Your task to perform on an android device: Show me popular videos on Youtube Image 0: 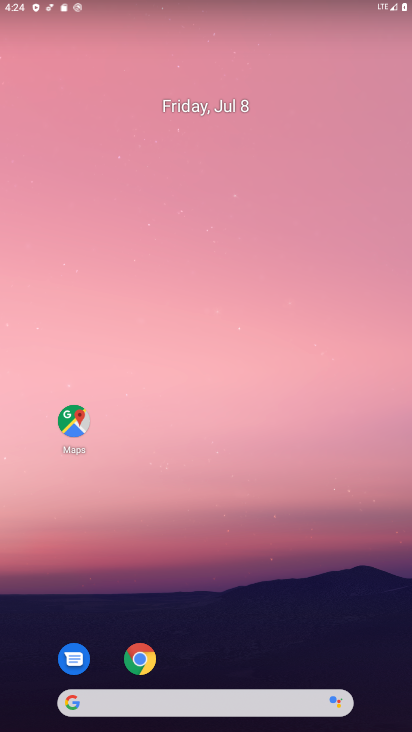
Step 0: drag from (248, 715) to (188, 392)
Your task to perform on an android device: Show me popular videos on Youtube Image 1: 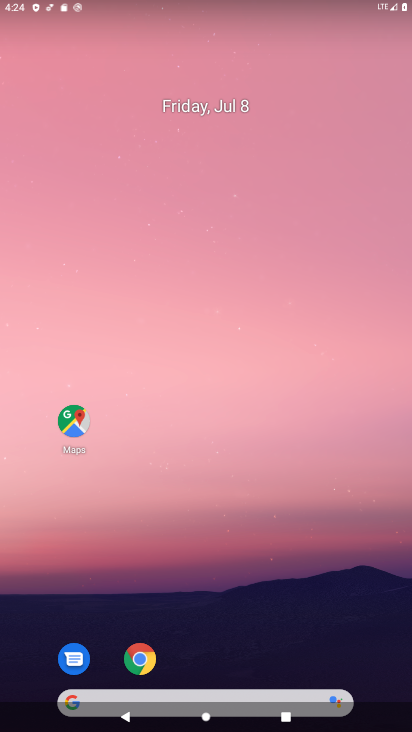
Step 1: drag from (381, 652) to (240, 99)
Your task to perform on an android device: Show me popular videos on Youtube Image 2: 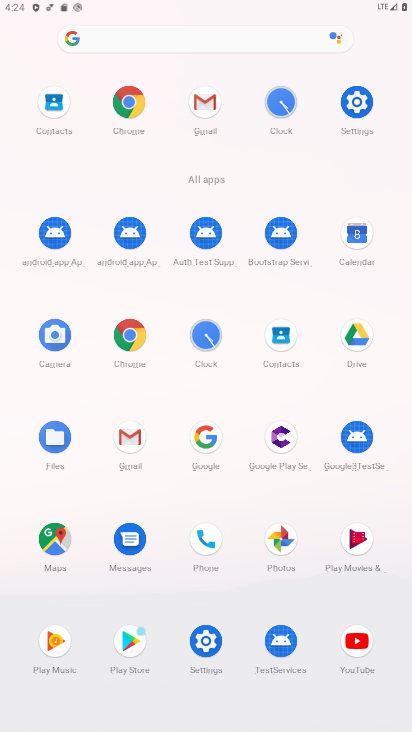
Step 2: click (362, 645)
Your task to perform on an android device: Show me popular videos on Youtube Image 3: 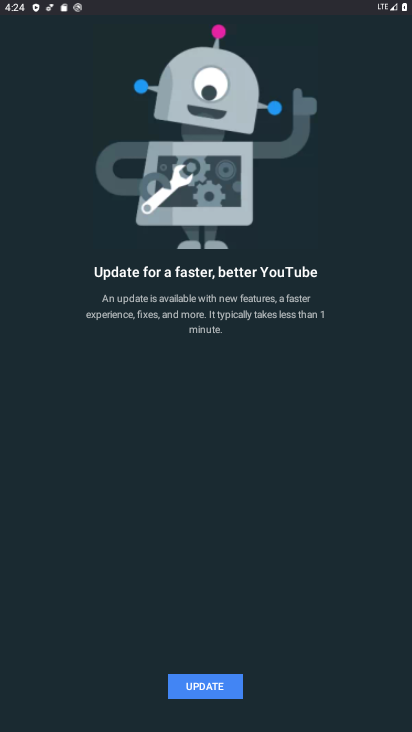
Step 3: click (237, 686)
Your task to perform on an android device: Show me popular videos on Youtube Image 4: 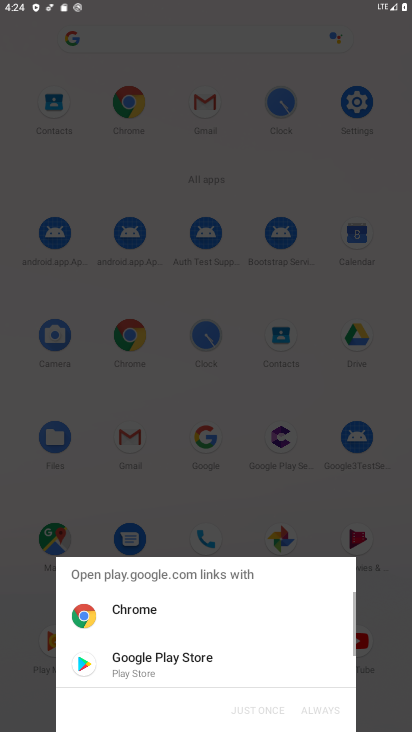
Step 4: click (226, 676)
Your task to perform on an android device: Show me popular videos on Youtube Image 5: 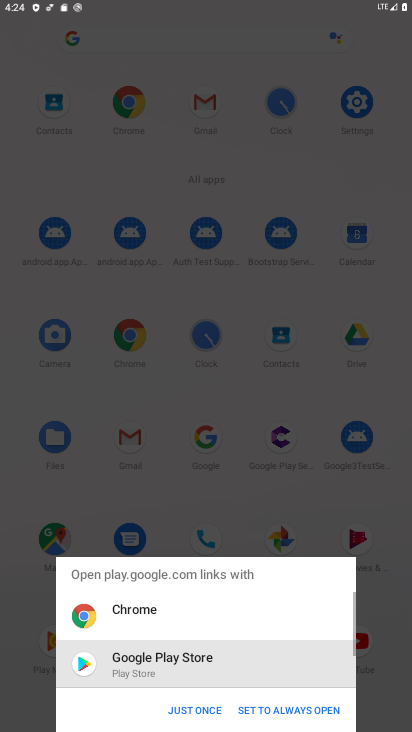
Step 5: click (202, 714)
Your task to perform on an android device: Show me popular videos on Youtube Image 6: 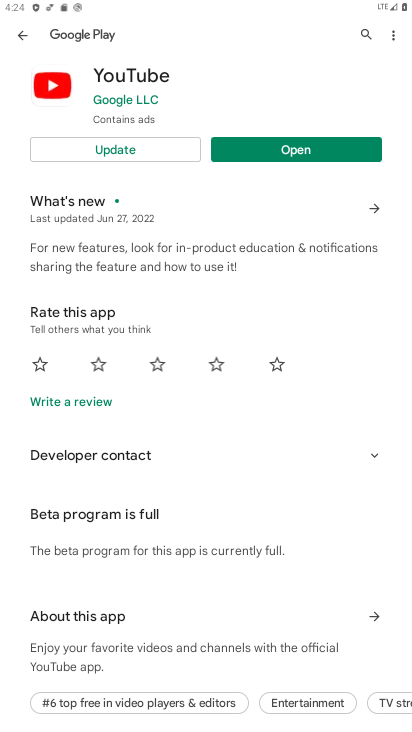
Step 6: click (149, 145)
Your task to perform on an android device: Show me popular videos on Youtube Image 7: 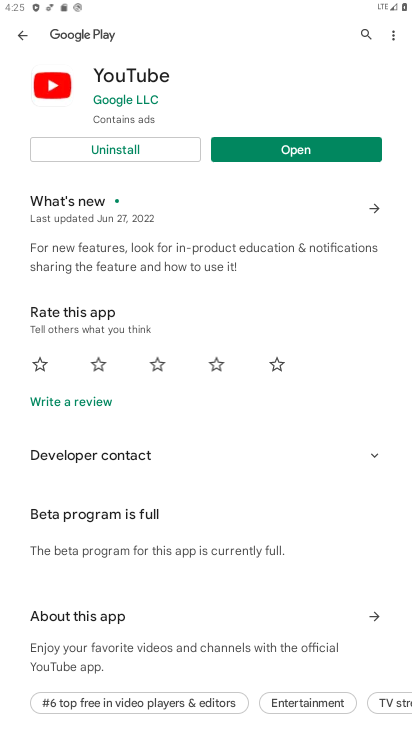
Step 7: click (256, 150)
Your task to perform on an android device: Show me popular videos on Youtube Image 8: 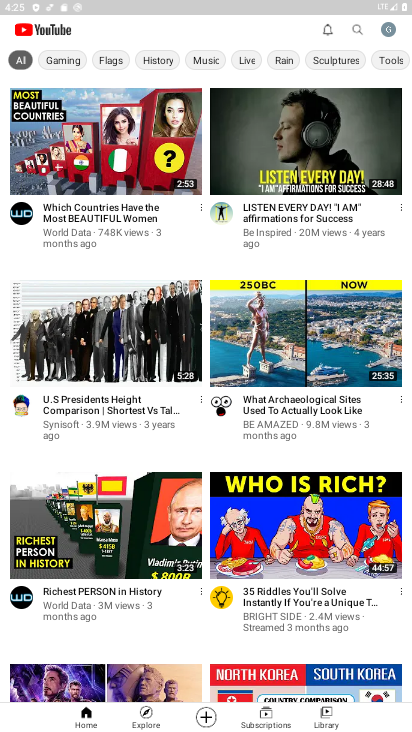
Step 8: click (364, 27)
Your task to perform on an android device: Show me popular videos on Youtube Image 9: 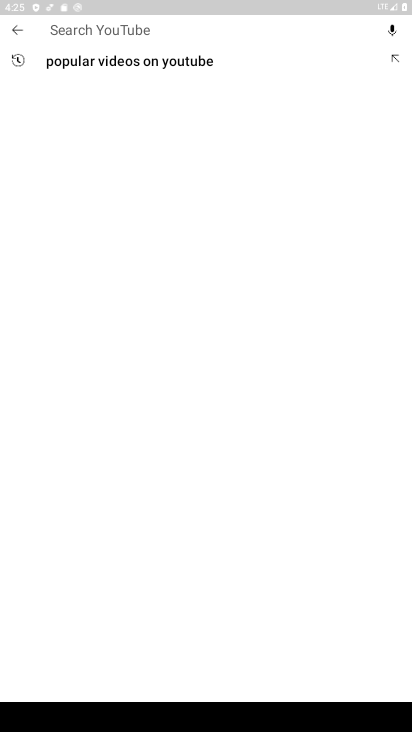
Step 9: type " popular videos on Youtube"
Your task to perform on an android device: Show me popular videos on Youtube Image 10: 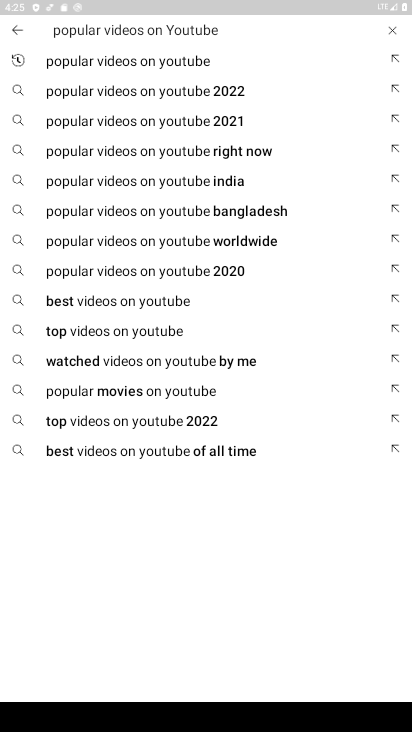
Step 10: click (166, 56)
Your task to perform on an android device: Show me popular videos on Youtube Image 11: 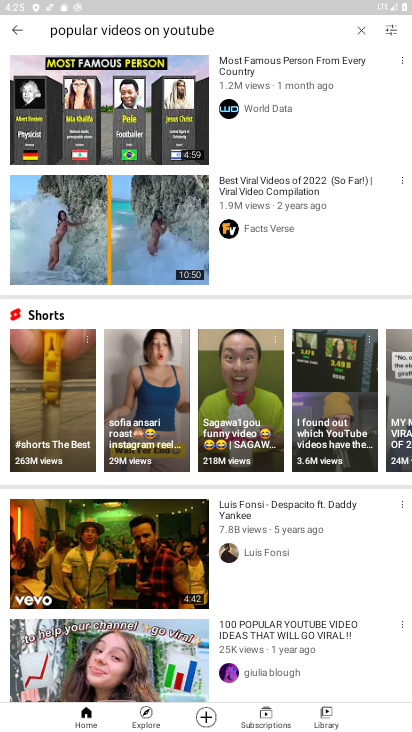
Step 11: task complete